Your task to perform on an android device: Empty the shopping cart on walmart.com. Image 0: 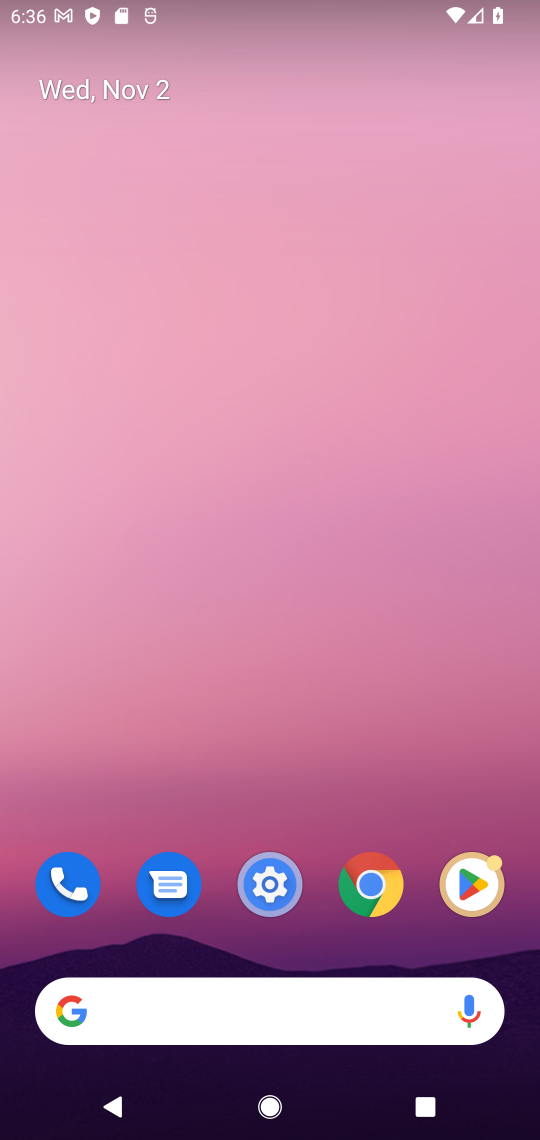
Step 0: click (298, 1020)
Your task to perform on an android device: Empty the shopping cart on walmart.com. Image 1: 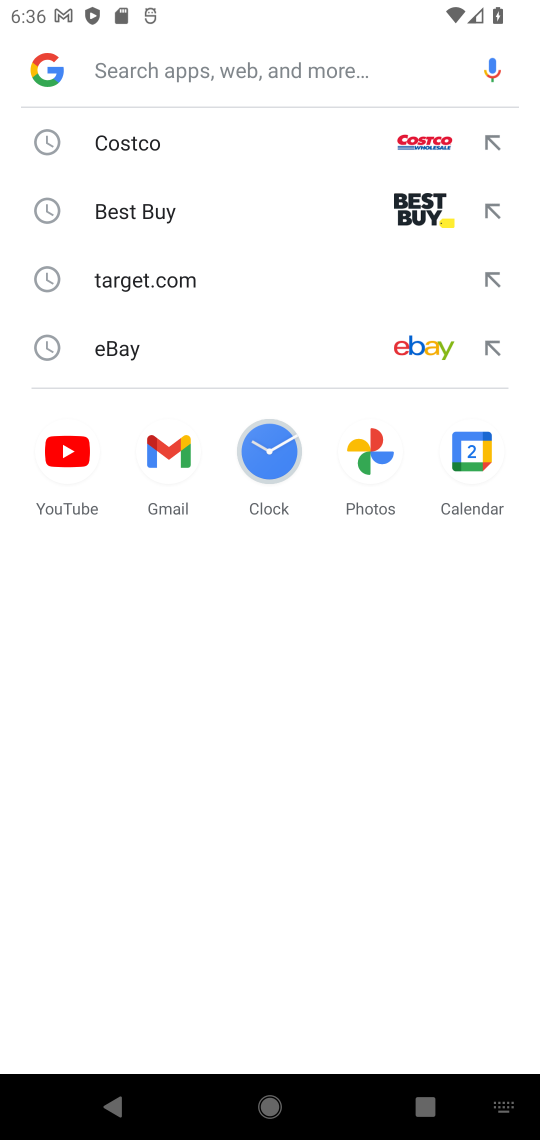
Step 1: type "walmart"
Your task to perform on an android device: Empty the shopping cart on walmart.com. Image 2: 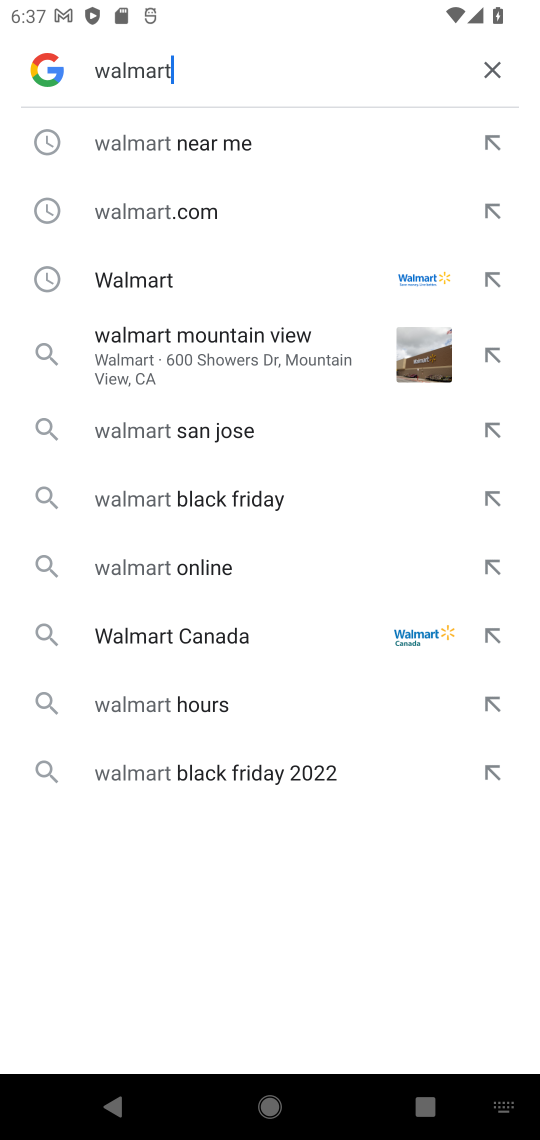
Step 2: click (168, 216)
Your task to perform on an android device: Empty the shopping cart on walmart.com. Image 3: 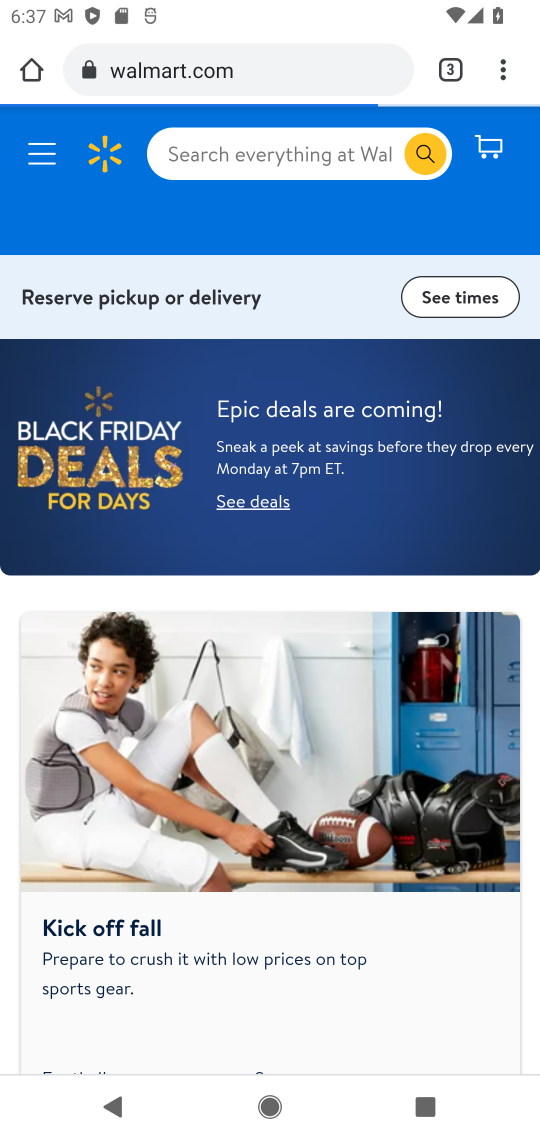
Step 3: click (339, 140)
Your task to perform on an android device: Empty the shopping cart on walmart.com. Image 4: 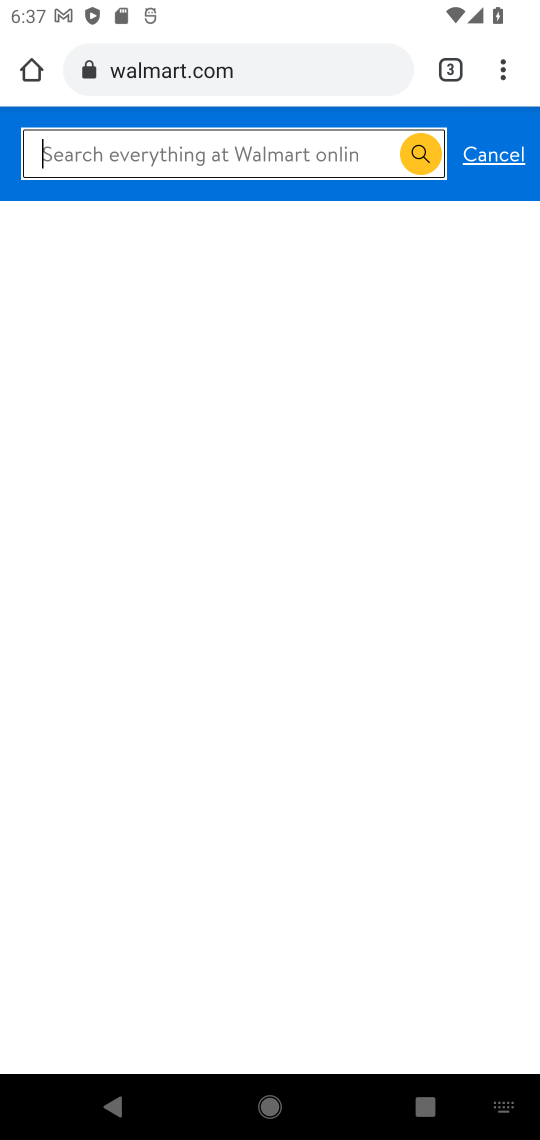
Step 4: click (486, 162)
Your task to perform on an android device: Empty the shopping cart on walmart.com. Image 5: 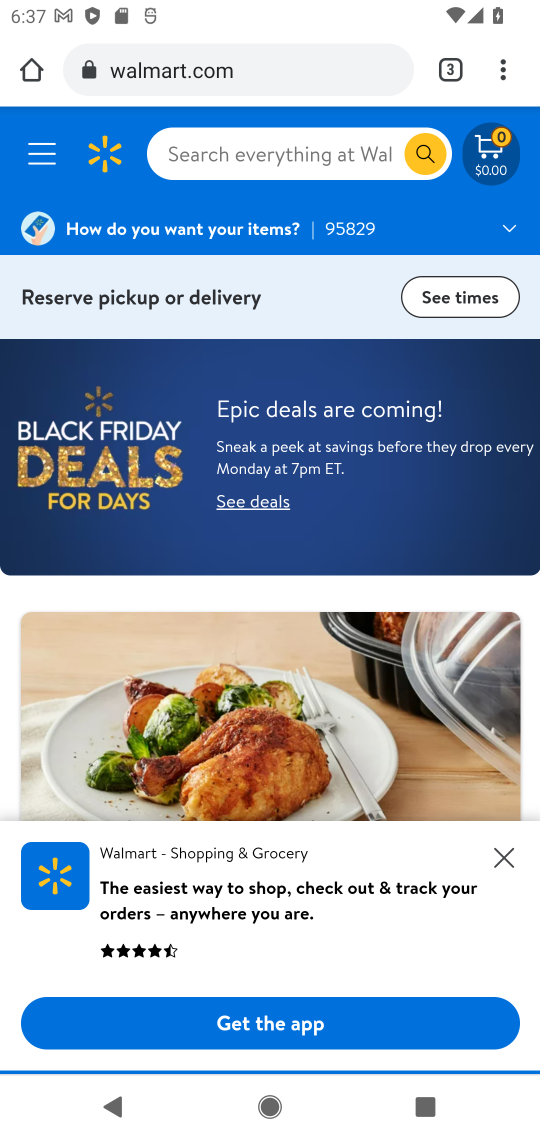
Step 5: click (486, 162)
Your task to perform on an android device: Empty the shopping cart on walmart.com. Image 6: 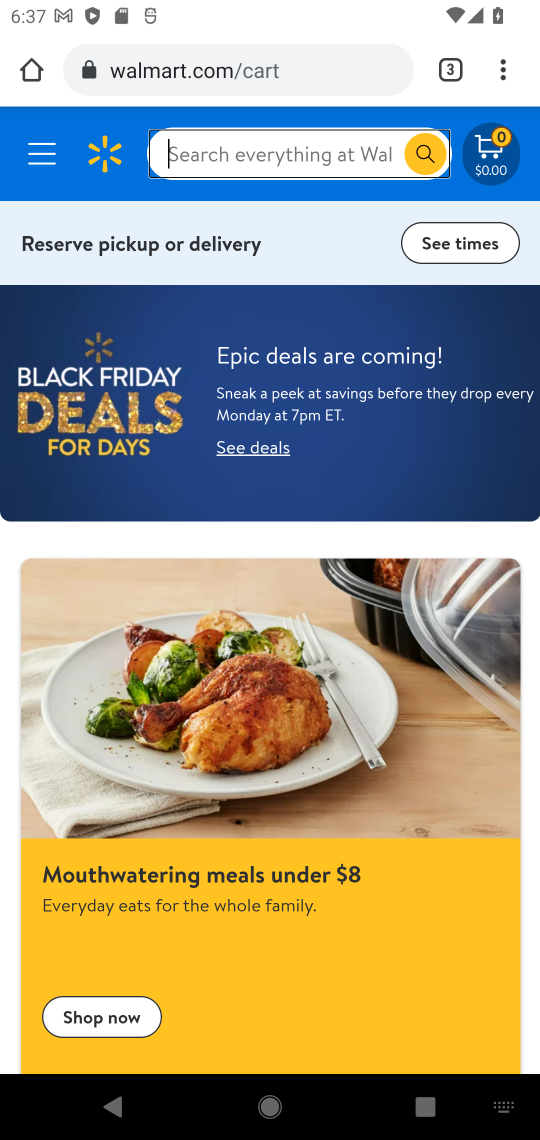
Step 6: task complete